Your task to perform on an android device: Search for usb-a to usb-b on costco, select the first entry, add it to the cart, then select checkout. Image 0: 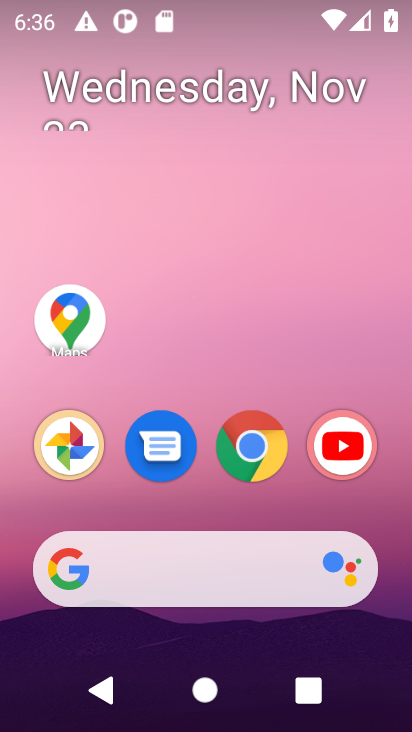
Step 0: click (173, 567)
Your task to perform on an android device: Search for usb-a to usb-b on costco, select the first entry, add it to the cart, then select checkout. Image 1: 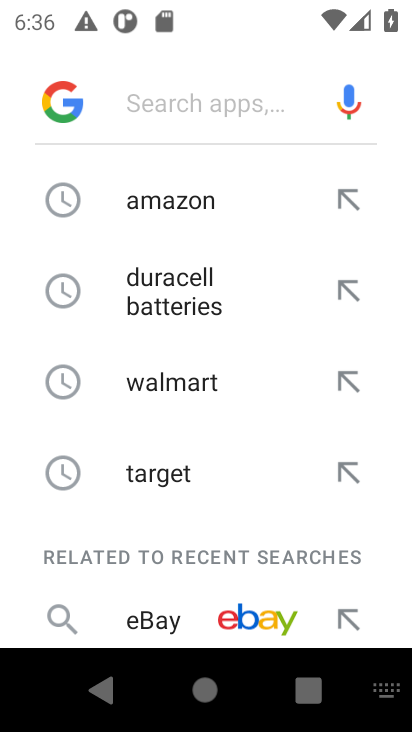
Step 1: type "costco.com"
Your task to perform on an android device: Search for usb-a to usb-b on costco, select the first entry, add it to the cart, then select checkout. Image 2: 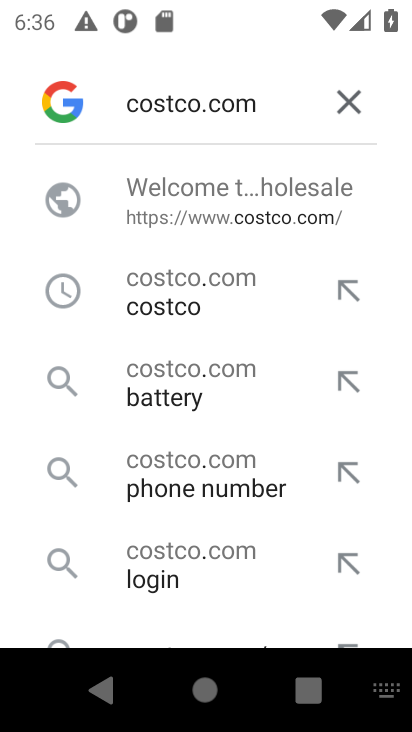
Step 2: click (212, 207)
Your task to perform on an android device: Search for usb-a to usb-b on costco, select the first entry, add it to the cart, then select checkout. Image 3: 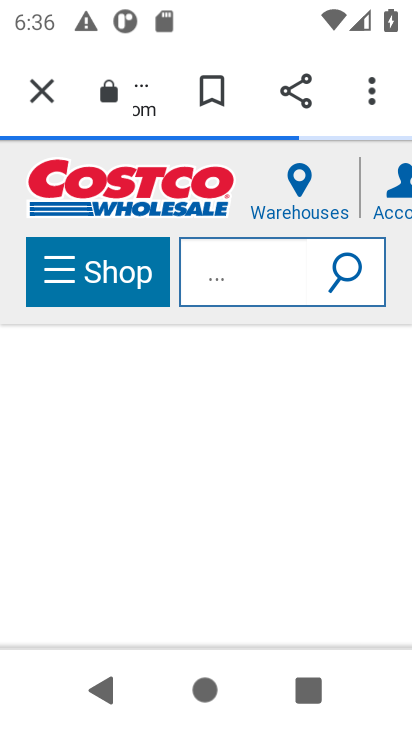
Step 3: click (210, 274)
Your task to perform on an android device: Search for usb-a to usb-b on costco, select the first entry, add it to the cart, then select checkout. Image 4: 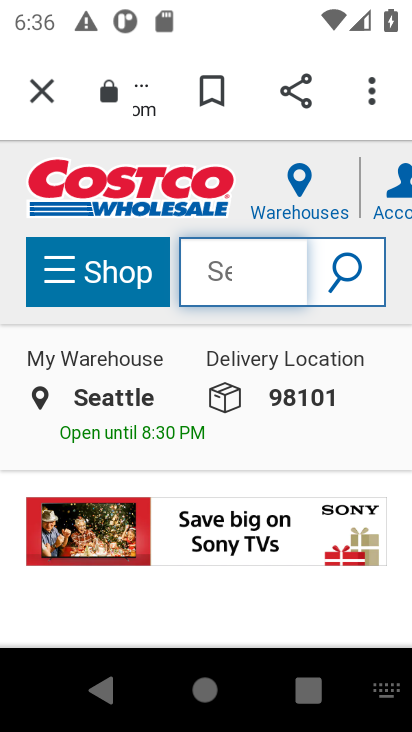
Step 4: type "usb-a to usb-b"
Your task to perform on an android device: Search for usb-a to usb-b on costco, select the first entry, add it to the cart, then select checkout. Image 5: 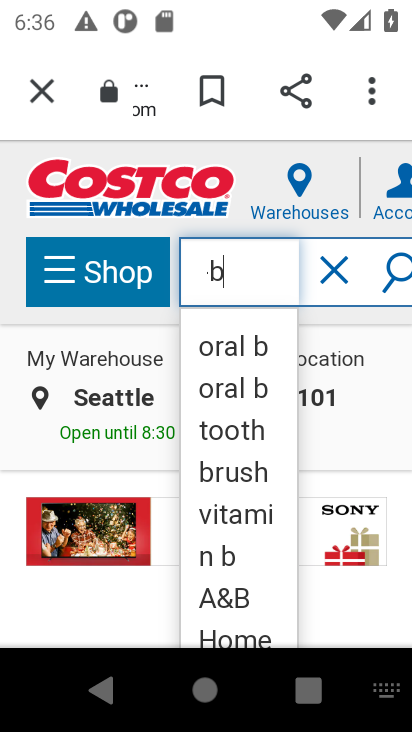
Step 5: click (396, 272)
Your task to perform on an android device: Search for usb-a to usb-b on costco, select the first entry, add it to the cart, then select checkout. Image 6: 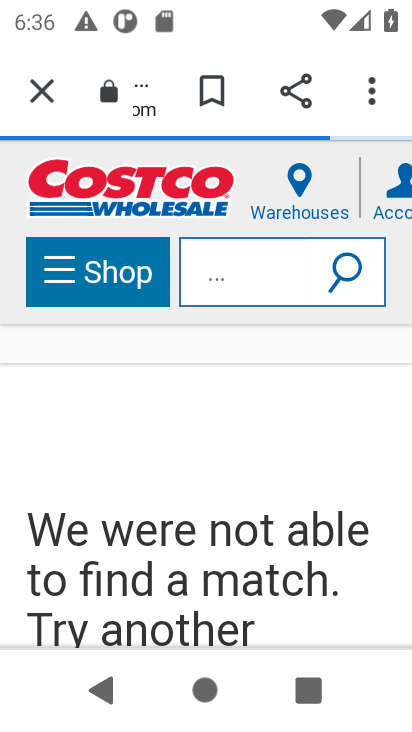
Step 6: task complete